Your task to perform on an android device: turn smart compose on in the gmail app Image 0: 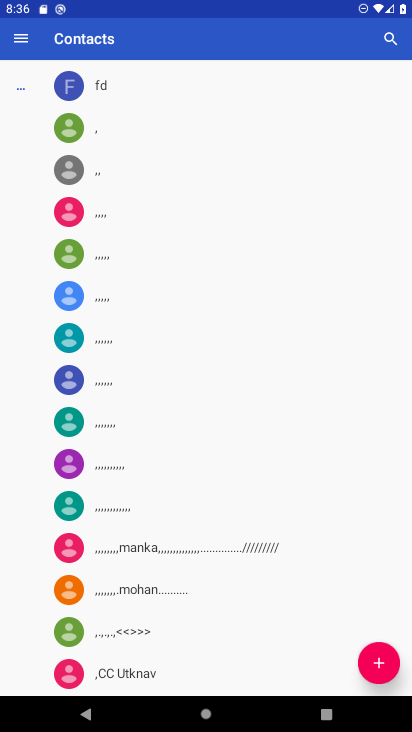
Step 0: drag from (227, 725) to (228, 169)
Your task to perform on an android device: turn smart compose on in the gmail app Image 1: 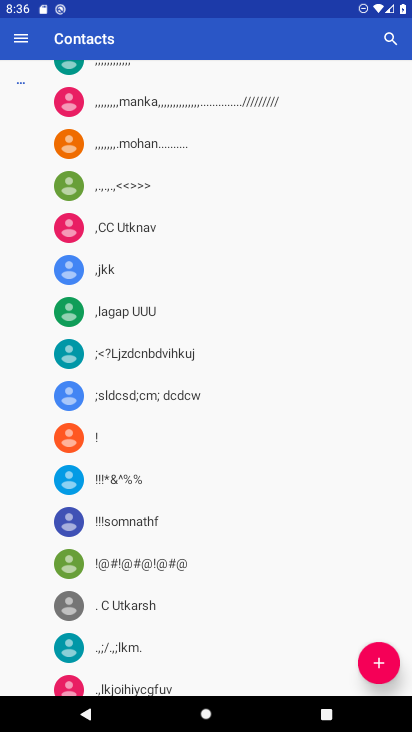
Step 1: press home button
Your task to perform on an android device: turn smart compose on in the gmail app Image 2: 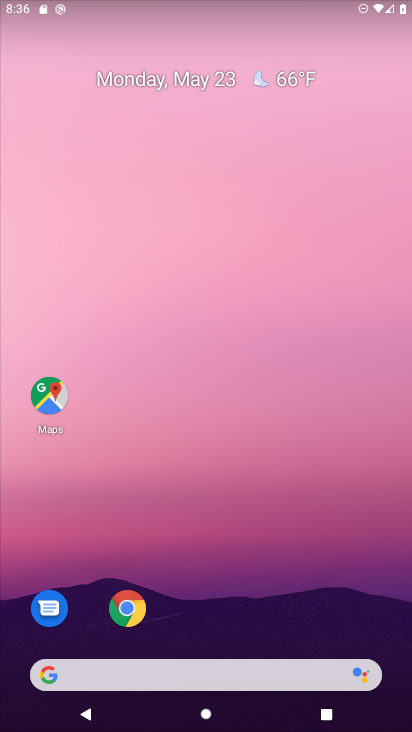
Step 2: drag from (232, 726) to (214, 94)
Your task to perform on an android device: turn smart compose on in the gmail app Image 3: 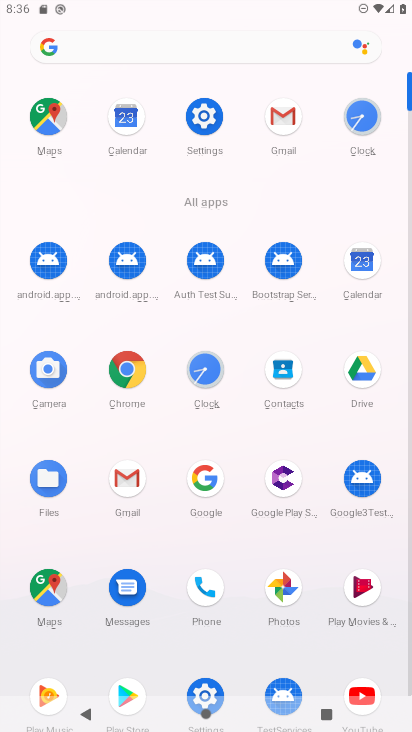
Step 3: click (131, 484)
Your task to perform on an android device: turn smart compose on in the gmail app Image 4: 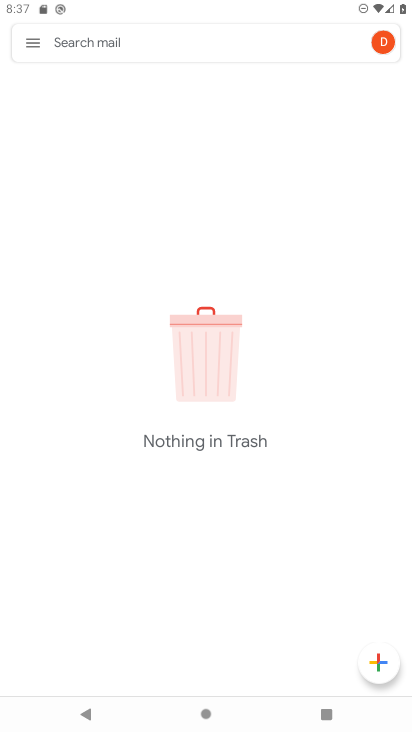
Step 4: click (31, 41)
Your task to perform on an android device: turn smart compose on in the gmail app Image 5: 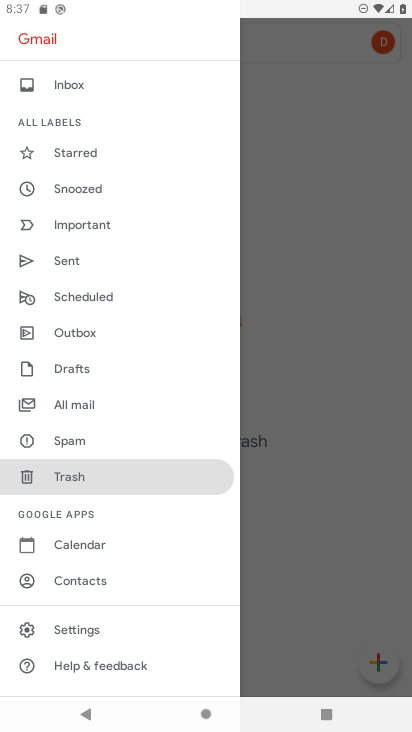
Step 5: click (78, 626)
Your task to perform on an android device: turn smart compose on in the gmail app Image 6: 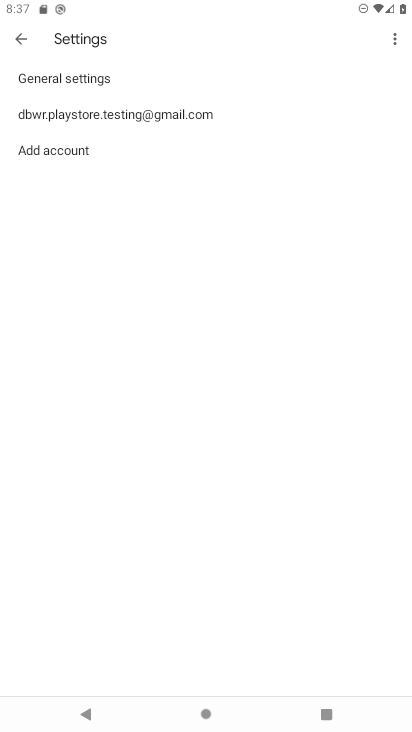
Step 6: click (106, 113)
Your task to perform on an android device: turn smart compose on in the gmail app Image 7: 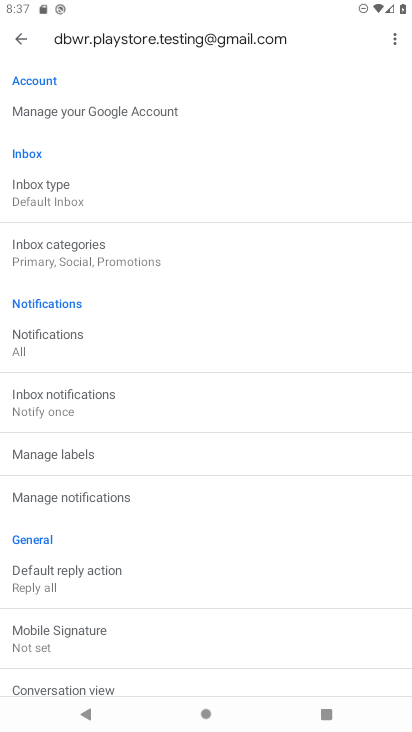
Step 7: task complete